Your task to perform on an android device: Open Chrome and go to settings Image 0: 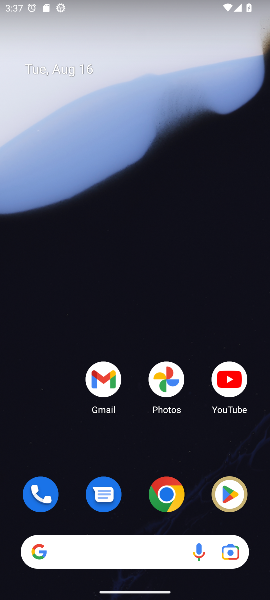
Step 0: click (165, 500)
Your task to perform on an android device: Open Chrome and go to settings Image 1: 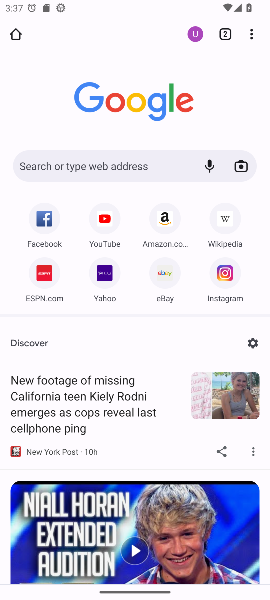
Step 1: click (249, 35)
Your task to perform on an android device: Open Chrome and go to settings Image 2: 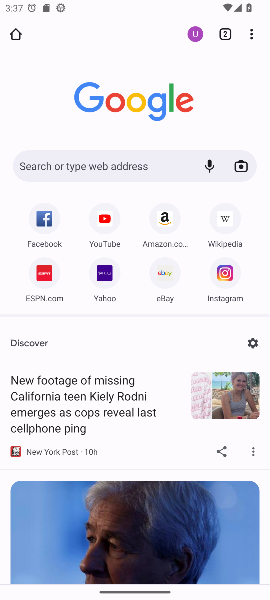
Step 2: task complete